Your task to perform on an android device: Go to internet settings Image 0: 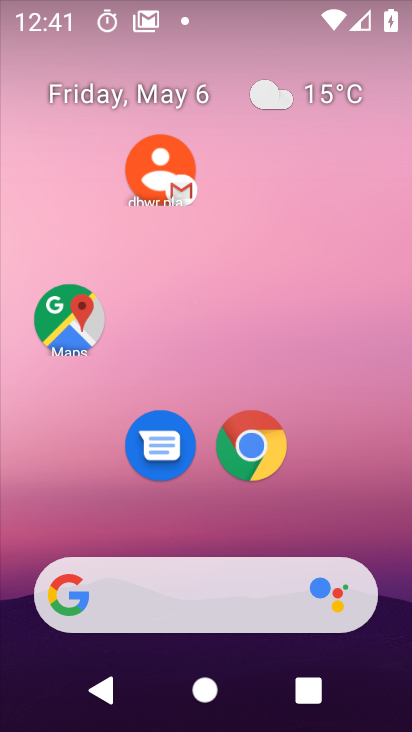
Step 0: drag from (383, 593) to (134, 99)
Your task to perform on an android device: Go to internet settings Image 1: 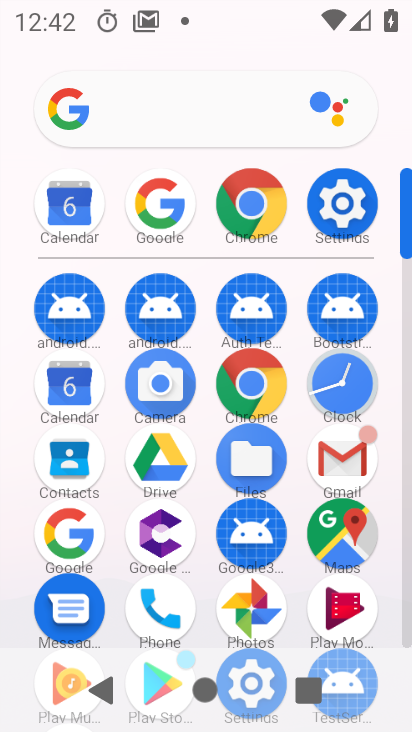
Step 1: click (355, 185)
Your task to perform on an android device: Go to internet settings Image 2: 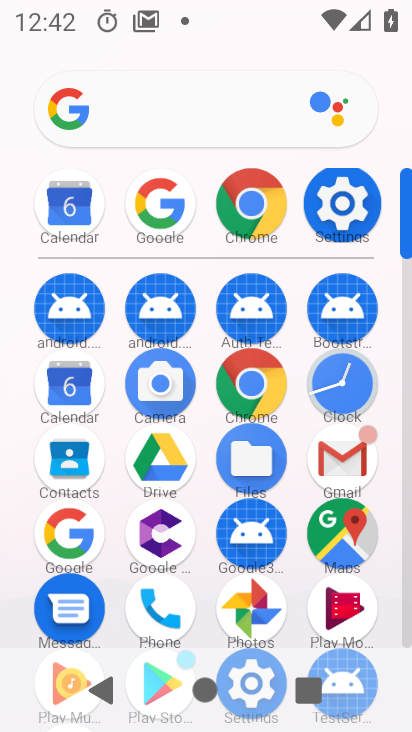
Step 2: click (353, 196)
Your task to perform on an android device: Go to internet settings Image 3: 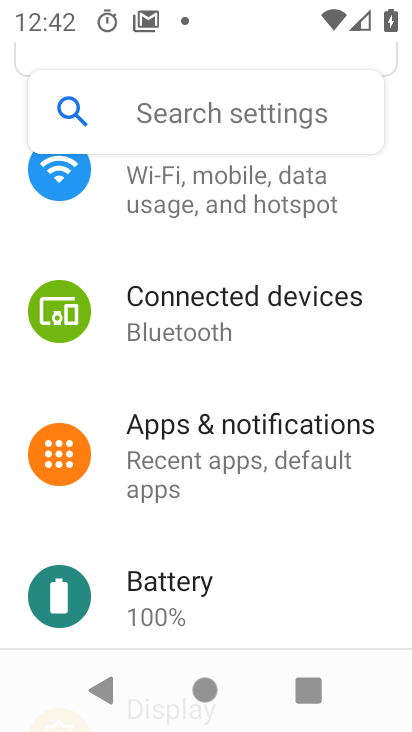
Step 3: click (178, 195)
Your task to perform on an android device: Go to internet settings Image 4: 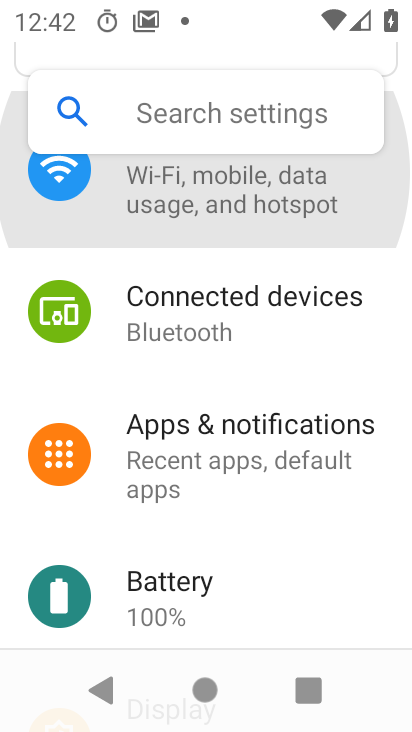
Step 4: click (178, 195)
Your task to perform on an android device: Go to internet settings Image 5: 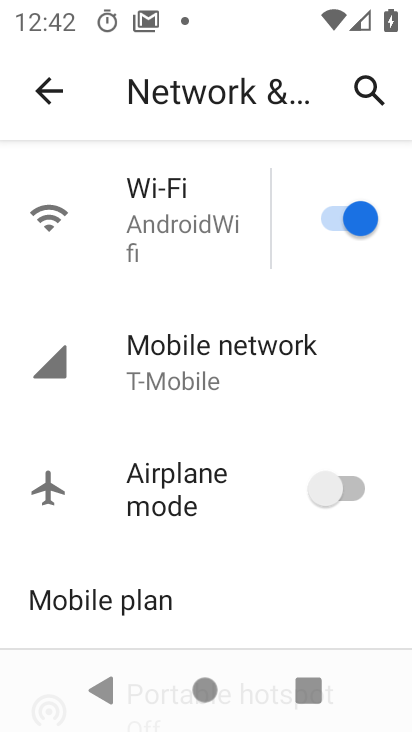
Step 5: task complete